Your task to perform on an android device: Go to internet settings Image 0: 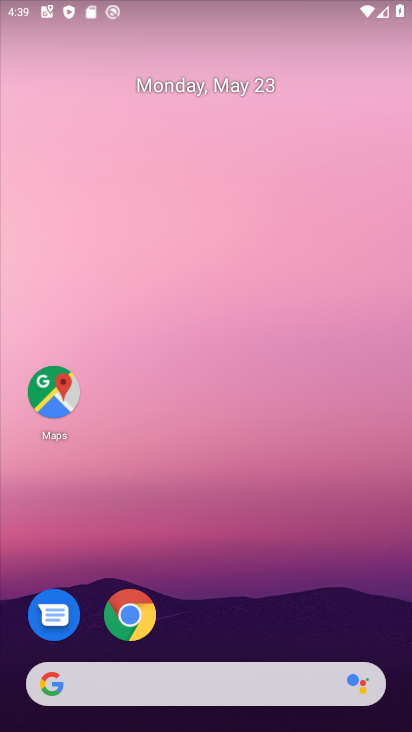
Step 0: drag from (264, 631) to (269, 55)
Your task to perform on an android device: Go to internet settings Image 1: 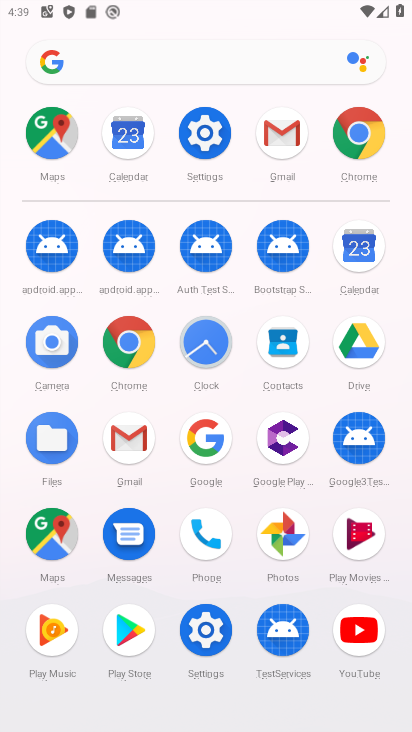
Step 1: click (201, 131)
Your task to perform on an android device: Go to internet settings Image 2: 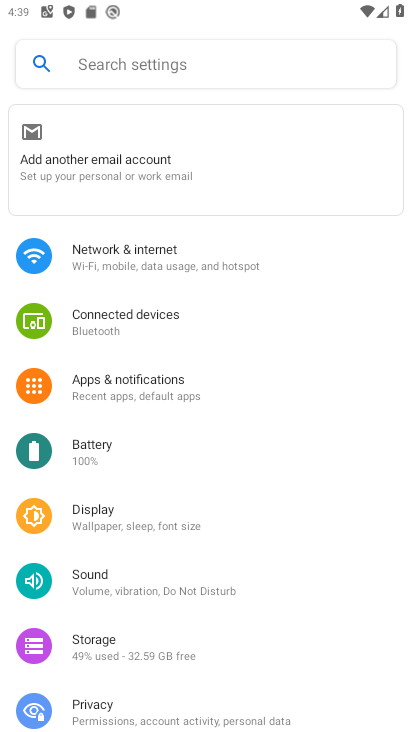
Step 2: click (165, 243)
Your task to perform on an android device: Go to internet settings Image 3: 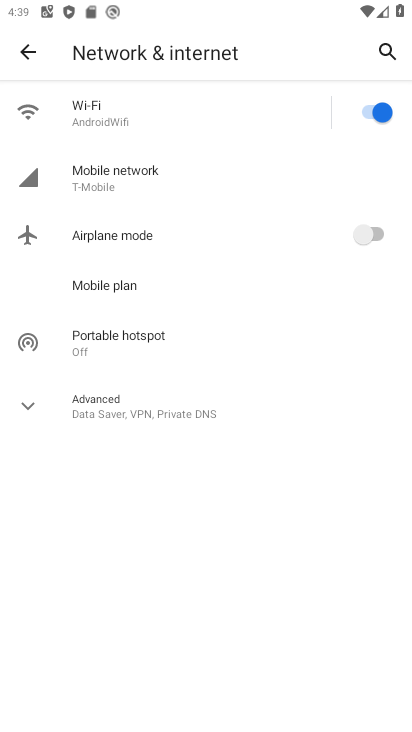
Step 3: task complete